Your task to perform on an android device: Clear all items from cart on costco. Add razer blade to the cart on costco, then select checkout. Image 0: 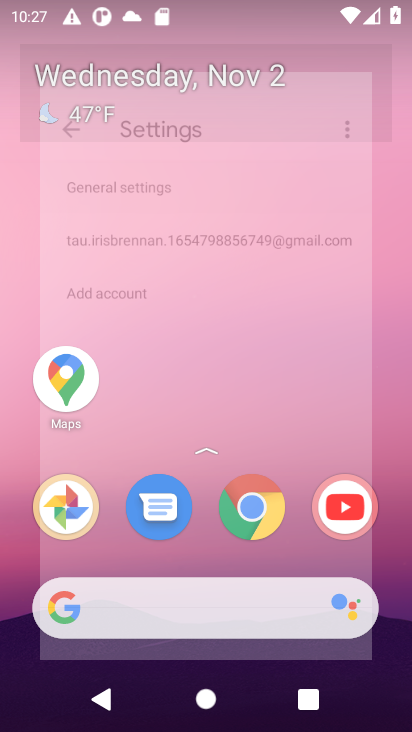
Step 0: click (182, 610)
Your task to perform on an android device: Clear all items from cart on costco. Add razer blade to the cart on costco, then select checkout. Image 1: 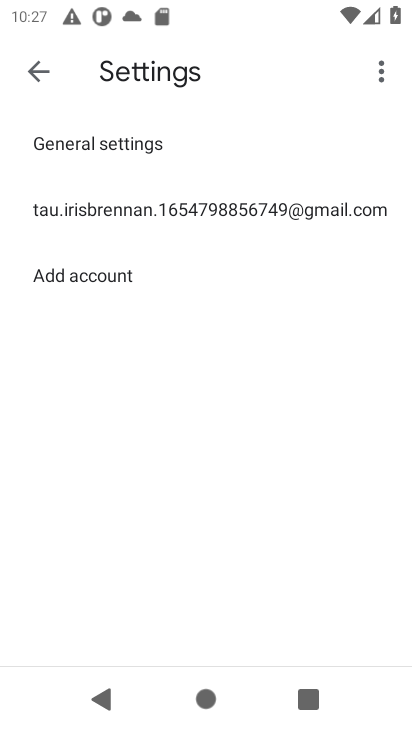
Step 1: press home button
Your task to perform on an android device: Clear all items from cart on costco. Add razer blade to the cart on costco, then select checkout. Image 2: 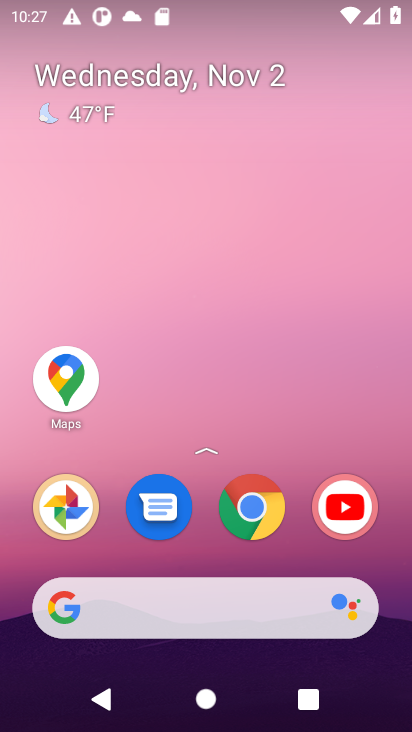
Step 2: click (232, 627)
Your task to perform on an android device: Clear all items from cart on costco. Add razer blade to the cart on costco, then select checkout. Image 3: 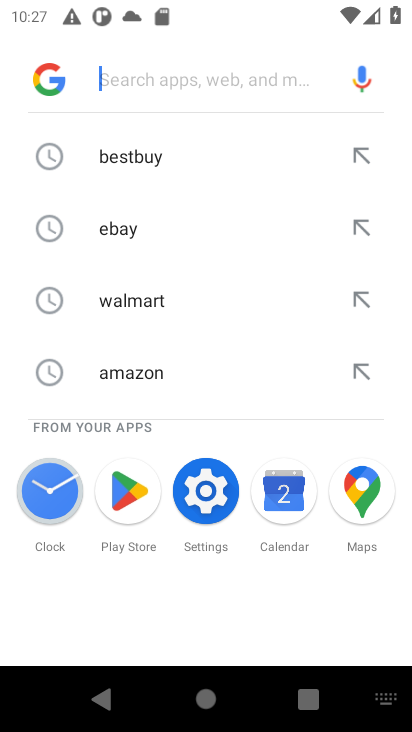
Step 3: type "costco"
Your task to perform on an android device: Clear all items from cart on costco. Add razer blade to the cart on costco, then select checkout. Image 4: 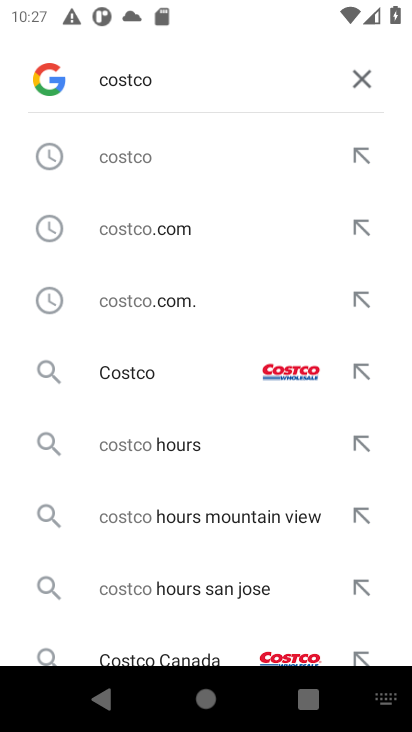
Step 4: click (203, 372)
Your task to perform on an android device: Clear all items from cart on costco. Add razer blade to the cart on costco, then select checkout. Image 5: 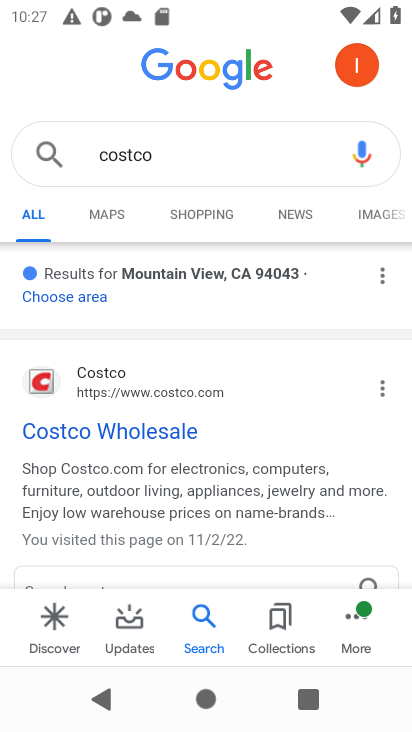
Step 5: click (101, 435)
Your task to perform on an android device: Clear all items from cart on costco. Add razer blade to the cart on costco, then select checkout. Image 6: 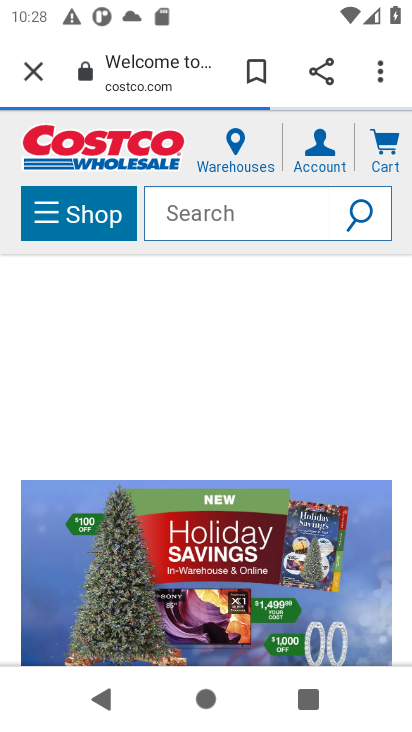
Step 6: click (238, 219)
Your task to perform on an android device: Clear all items from cart on costco. Add razer blade to the cart on costco, then select checkout. Image 7: 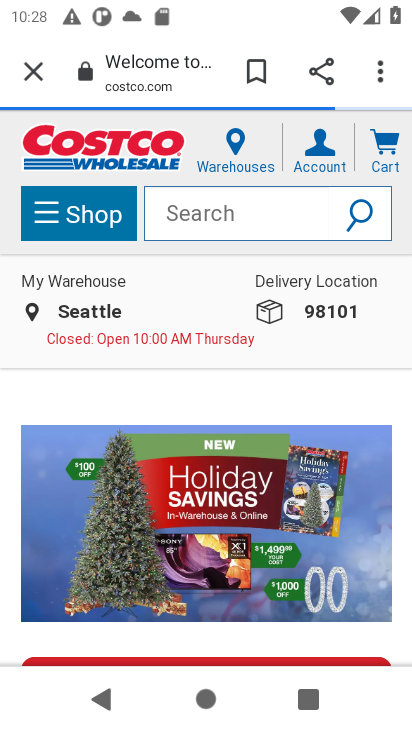
Step 7: click (268, 206)
Your task to perform on an android device: Clear all items from cart on costco. Add razer blade to the cart on costco, then select checkout. Image 8: 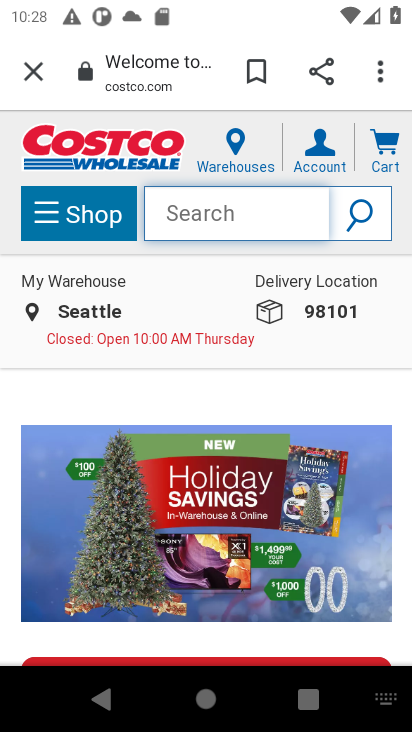
Step 8: type "razer blade"
Your task to perform on an android device: Clear all items from cart on costco. Add razer blade to the cart on costco, then select checkout. Image 9: 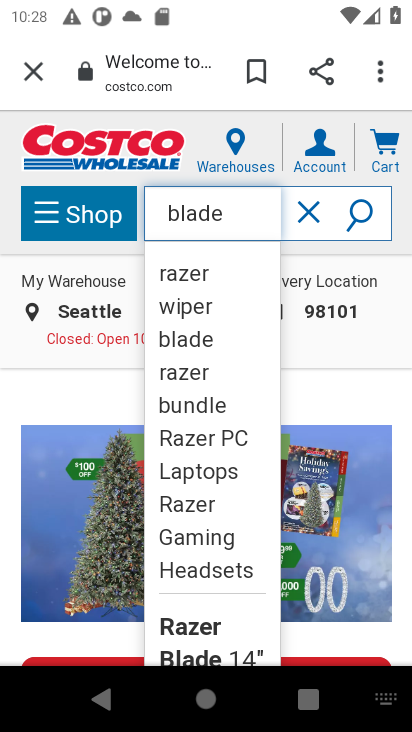
Step 9: click (177, 275)
Your task to perform on an android device: Clear all items from cart on costco. Add razer blade to the cart on costco, then select checkout. Image 10: 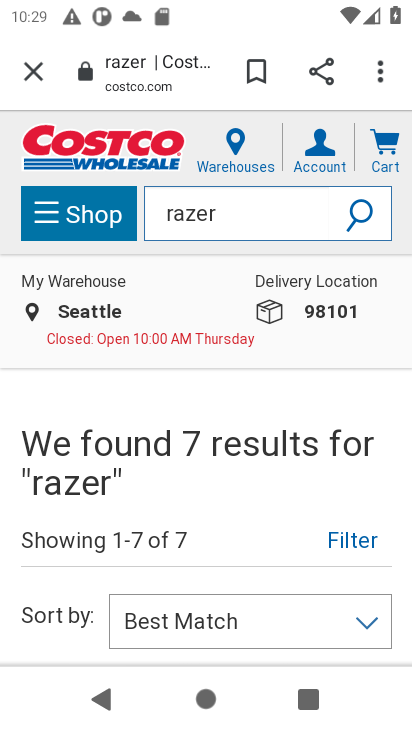
Step 10: task complete